Your task to perform on an android device: turn on data saver in the chrome app Image 0: 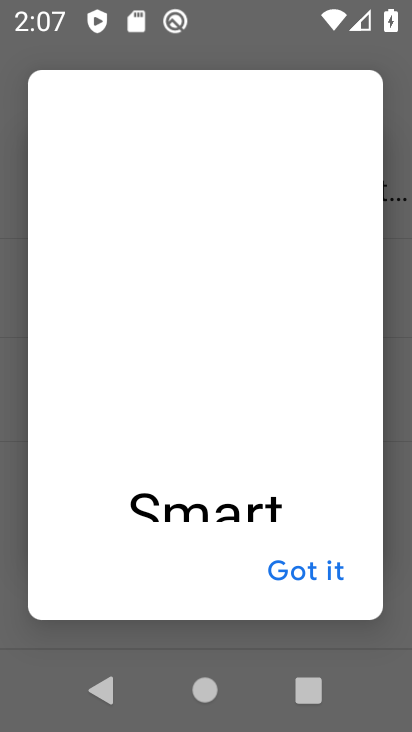
Step 0: press home button
Your task to perform on an android device: turn on data saver in the chrome app Image 1: 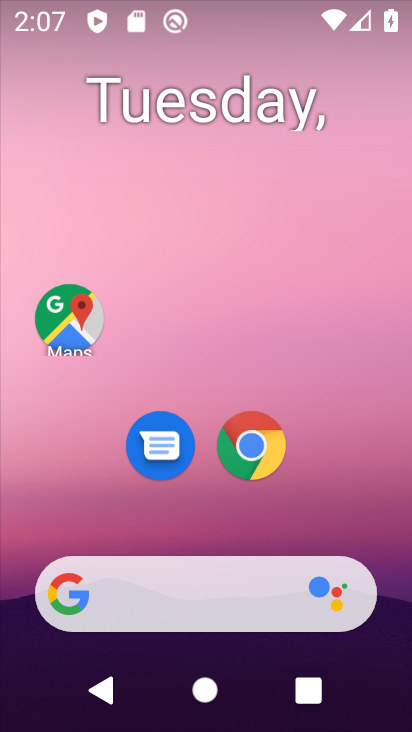
Step 1: drag from (213, 560) to (310, 54)
Your task to perform on an android device: turn on data saver in the chrome app Image 2: 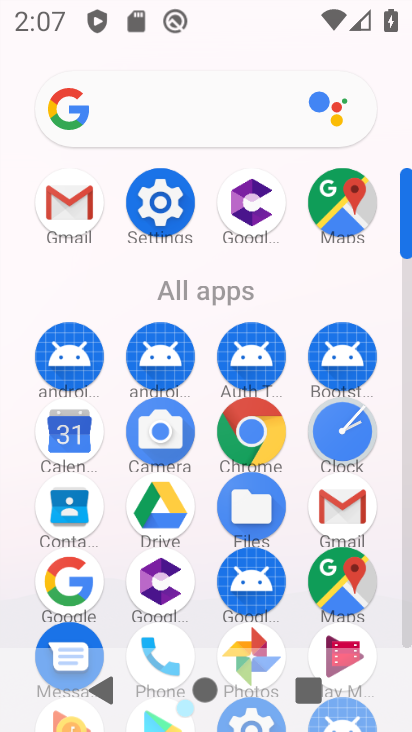
Step 2: drag from (177, 391) to (233, 288)
Your task to perform on an android device: turn on data saver in the chrome app Image 3: 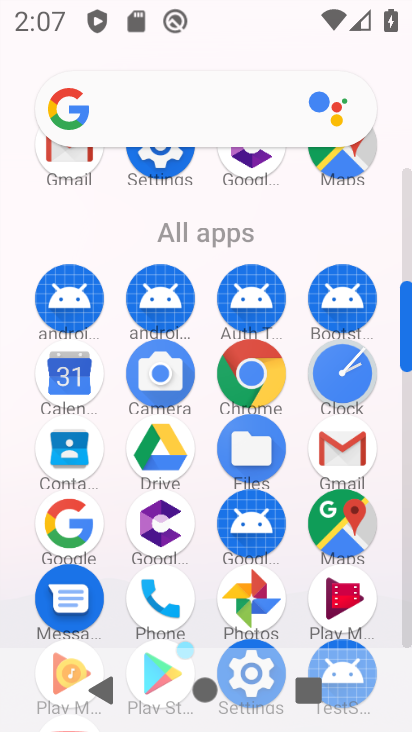
Step 3: drag from (176, 598) to (267, 310)
Your task to perform on an android device: turn on data saver in the chrome app Image 4: 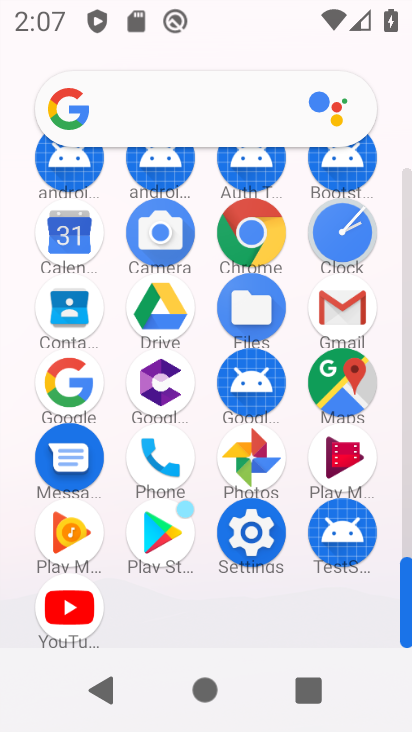
Step 4: click (266, 240)
Your task to perform on an android device: turn on data saver in the chrome app Image 5: 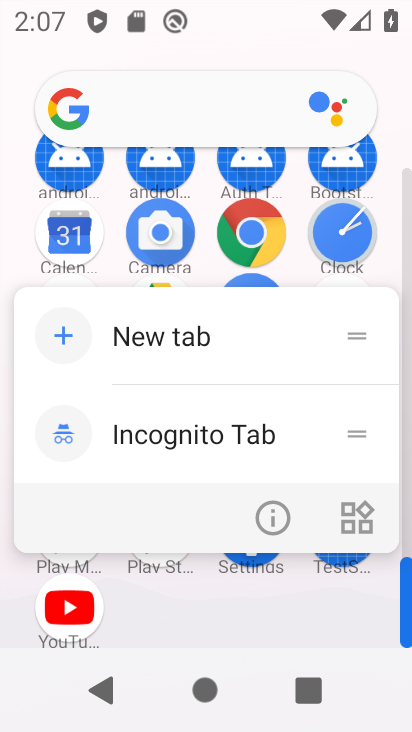
Step 5: click (249, 251)
Your task to perform on an android device: turn on data saver in the chrome app Image 6: 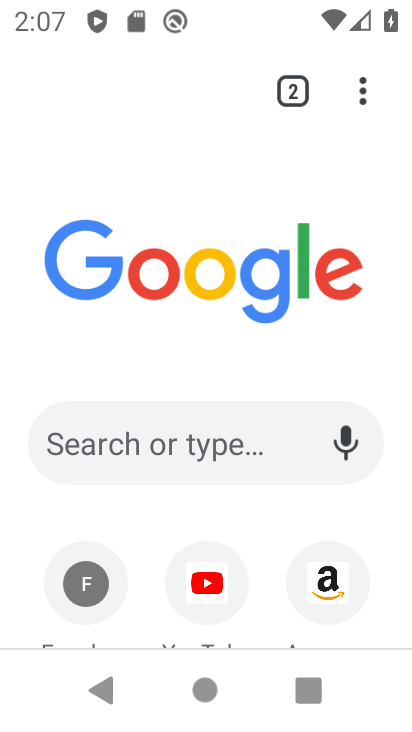
Step 6: click (252, 242)
Your task to perform on an android device: turn on data saver in the chrome app Image 7: 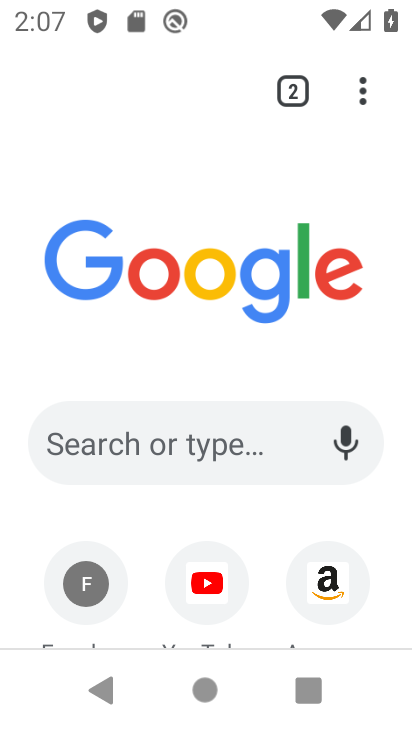
Step 7: drag from (381, 95) to (270, 494)
Your task to perform on an android device: turn on data saver in the chrome app Image 8: 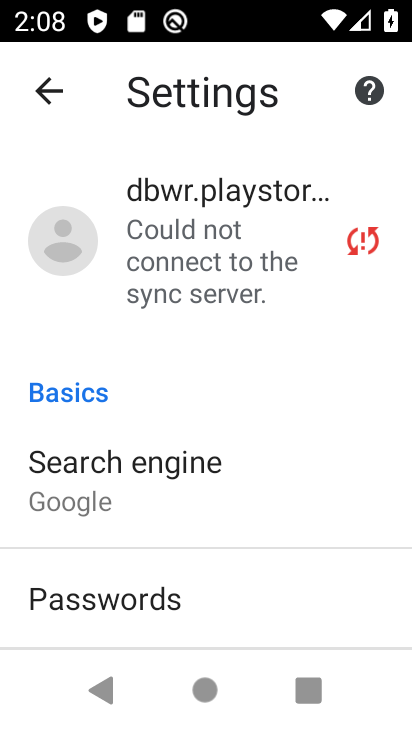
Step 8: drag from (177, 606) to (356, 205)
Your task to perform on an android device: turn on data saver in the chrome app Image 9: 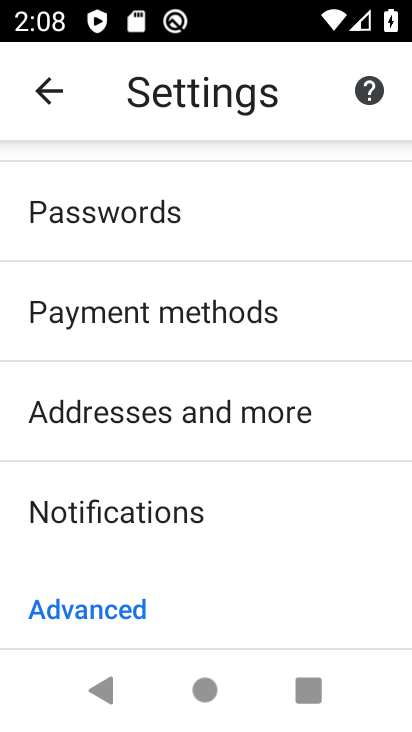
Step 9: drag from (261, 537) to (411, 96)
Your task to perform on an android device: turn on data saver in the chrome app Image 10: 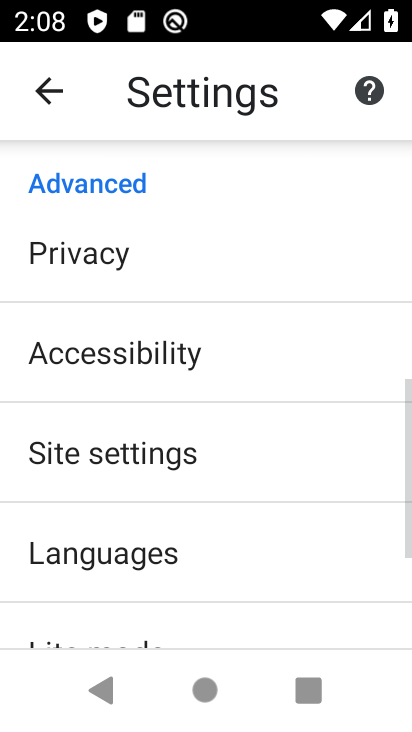
Step 10: drag from (248, 521) to (342, 277)
Your task to perform on an android device: turn on data saver in the chrome app Image 11: 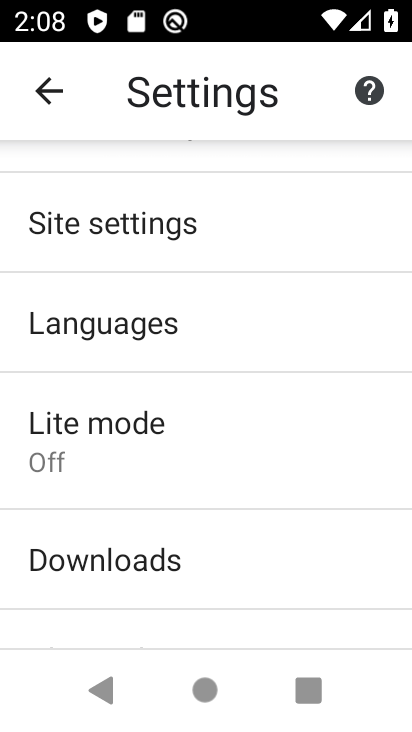
Step 11: click (237, 442)
Your task to perform on an android device: turn on data saver in the chrome app Image 12: 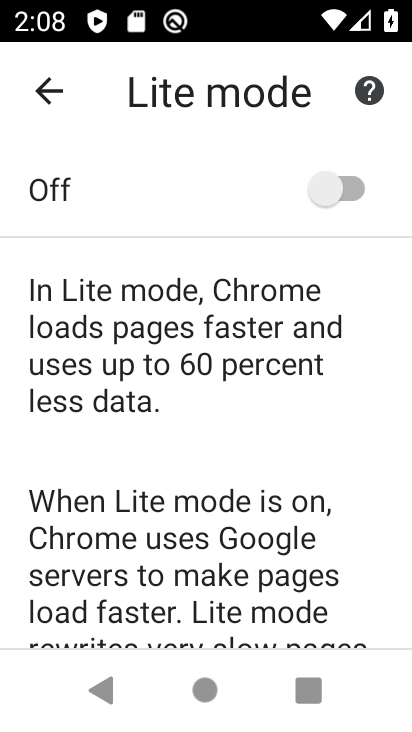
Step 12: click (361, 190)
Your task to perform on an android device: turn on data saver in the chrome app Image 13: 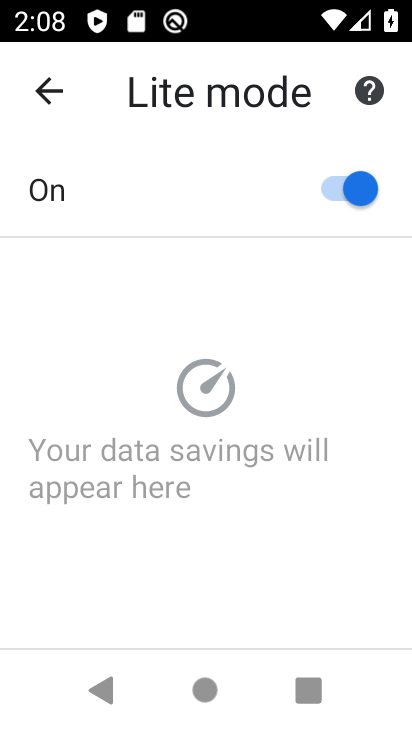
Step 13: task complete